Your task to perform on an android device: Open the camera Image 0: 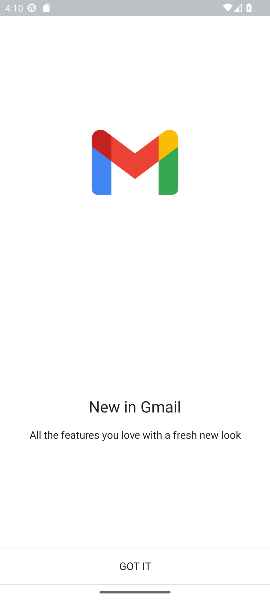
Step 0: press home button
Your task to perform on an android device: Open the camera Image 1: 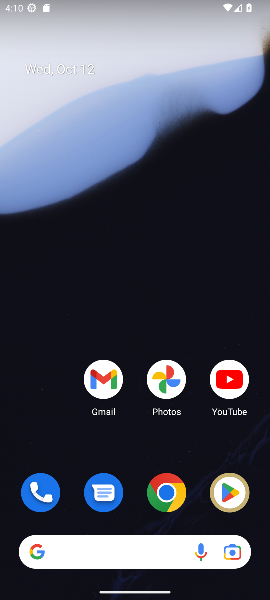
Step 1: drag from (135, 446) to (145, 6)
Your task to perform on an android device: Open the camera Image 2: 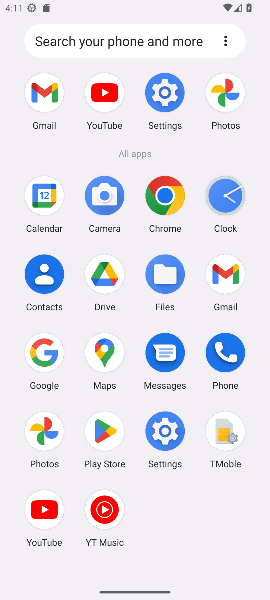
Step 2: click (99, 197)
Your task to perform on an android device: Open the camera Image 3: 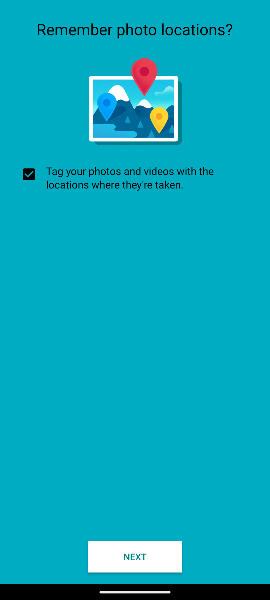
Step 3: click (134, 553)
Your task to perform on an android device: Open the camera Image 4: 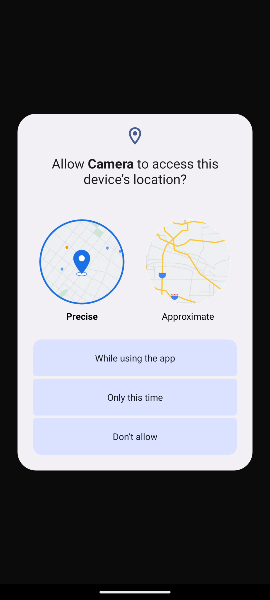
Step 4: click (131, 439)
Your task to perform on an android device: Open the camera Image 5: 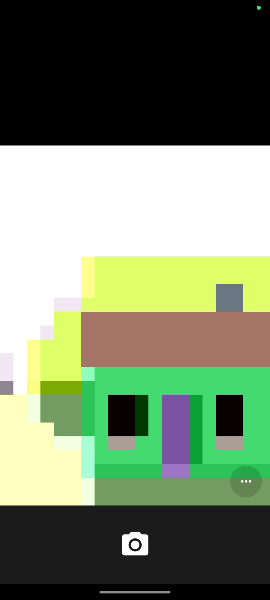
Step 5: task complete